Your task to perform on an android device: Open Yahoo.com Image 0: 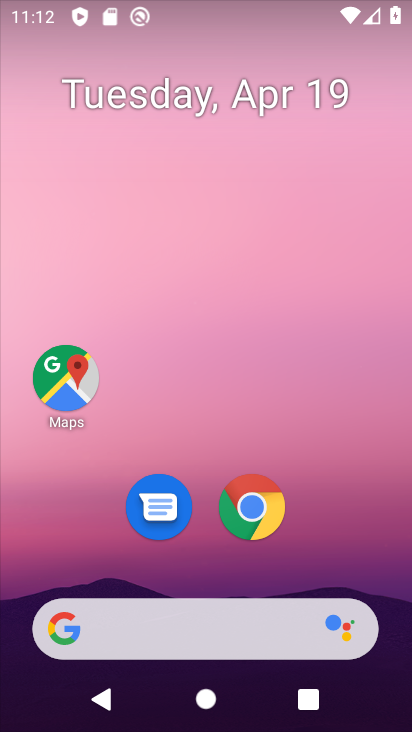
Step 0: drag from (381, 462) to (380, 131)
Your task to perform on an android device: Open Yahoo.com Image 1: 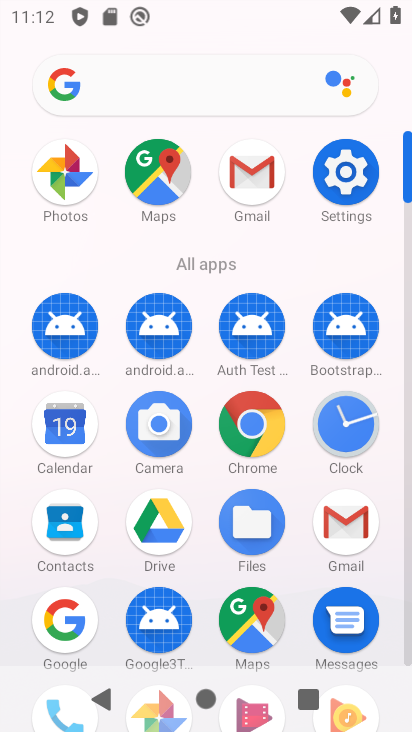
Step 1: click (251, 440)
Your task to perform on an android device: Open Yahoo.com Image 2: 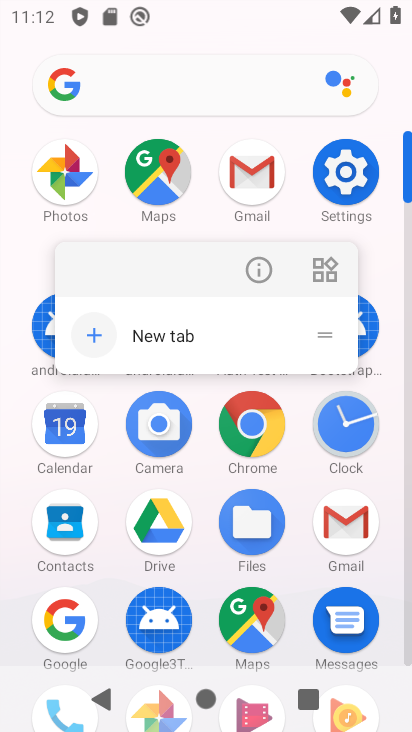
Step 2: click (252, 440)
Your task to perform on an android device: Open Yahoo.com Image 3: 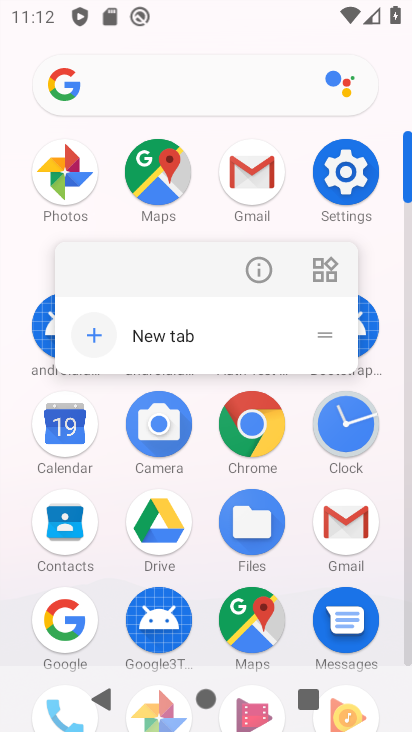
Step 3: click (256, 427)
Your task to perform on an android device: Open Yahoo.com Image 4: 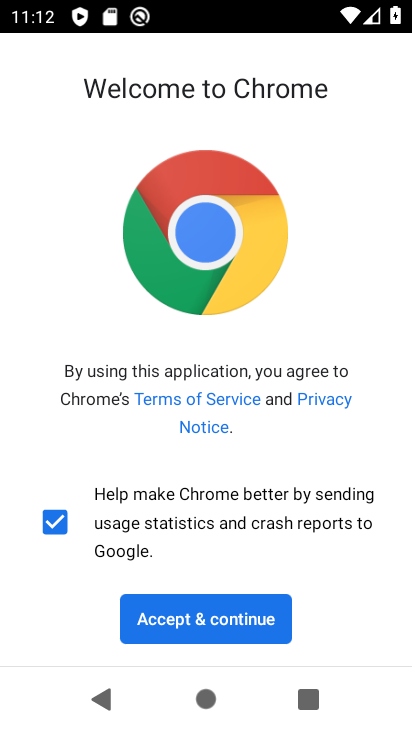
Step 4: click (251, 610)
Your task to perform on an android device: Open Yahoo.com Image 5: 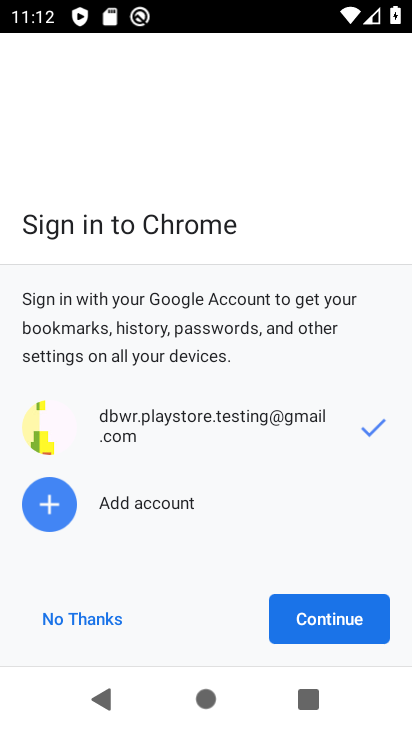
Step 5: click (321, 609)
Your task to perform on an android device: Open Yahoo.com Image 6: 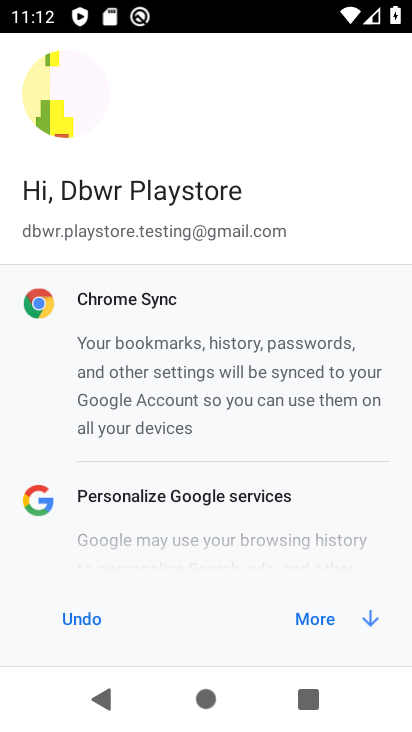
Step 6: click (321, 611)
Your task to perform on an android device: Open Yahoo.com Image 7: 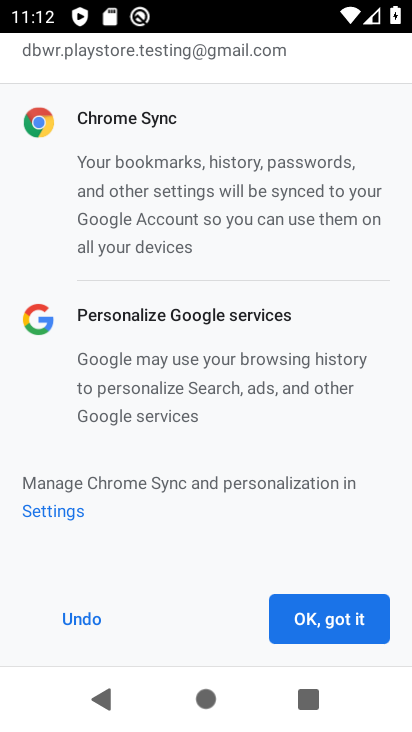
Step 7: click (321, 612)
Your task to perform on an android device: Open Yahoo.com Image 8: 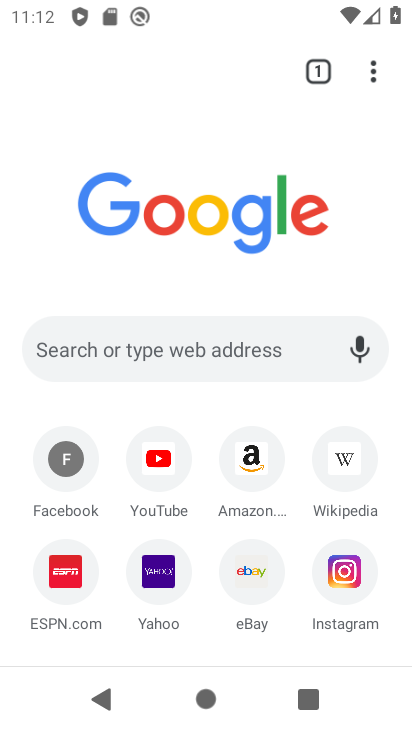
Step 8: click (248, 359)
Your task to perform on an android device: Open Yahoo.com Image 9: 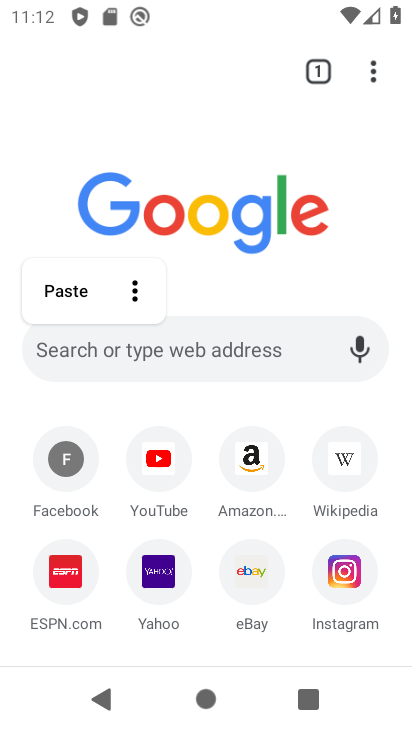
Step 9: click (228, 350)
Your task to perform on an android device: Open Yahoo.com Image 10: 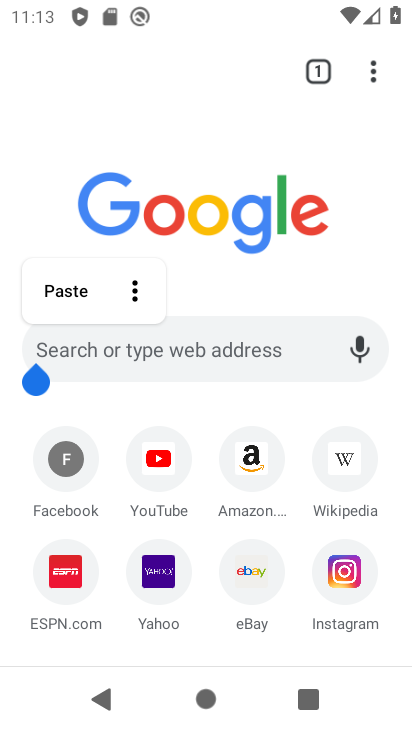
Step 10: click (226, 348)
Your task to perform on an android device: Open Yahoo.com Image 11: 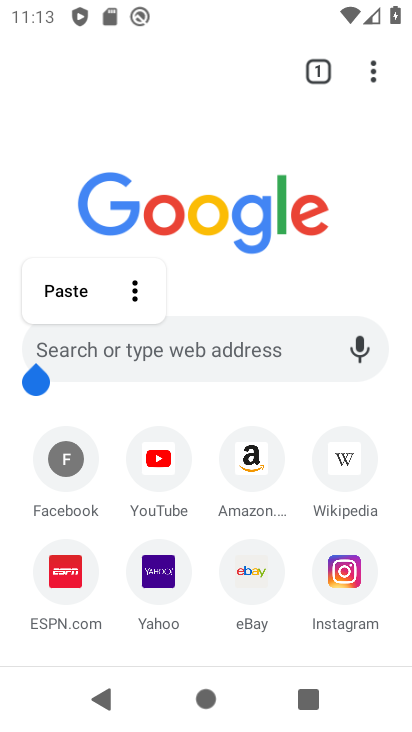
Step 11: click (227, 350)
Your task to perform on an android device: Open Yahoo.com Image 12: 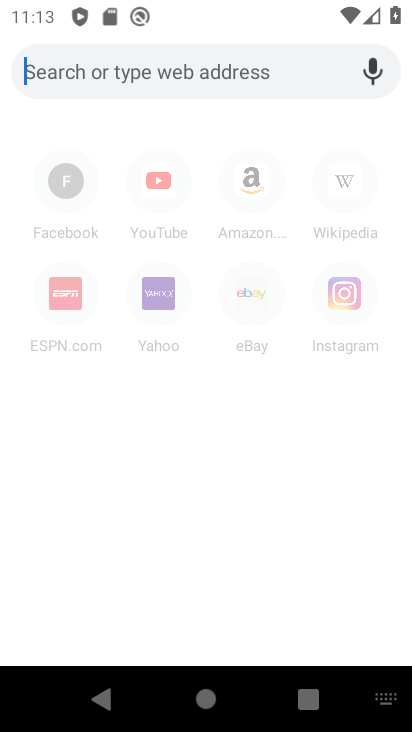
Step 12: type "yahoo.com"
Your task to perform on an android device: Open Yahoo.com Image 13: 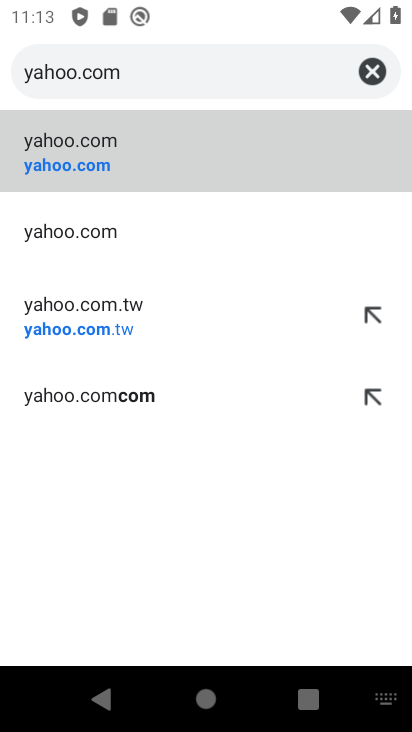
Step 13: click (103, 156)
Your task to perform on an android device: Open Yahoo.com Image 14: 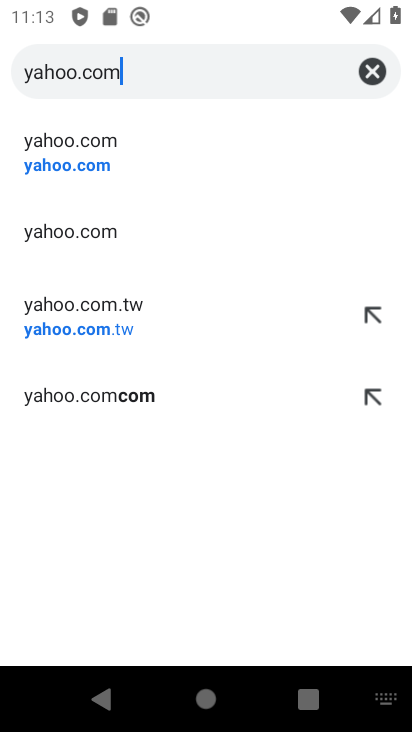
Step 14: click (99, 165)
Your task to perform on an android device: Open Yahoo.com Image 15: 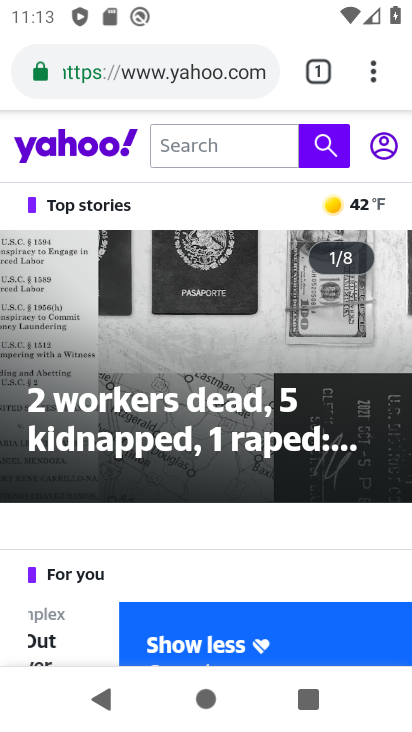
Step 15: task complete